Your task to perform on an android device: Clear the cart on bestbuy. Search for rayovac triple a on bestbuy, select the first entry, and add it to the cart. Image 0: 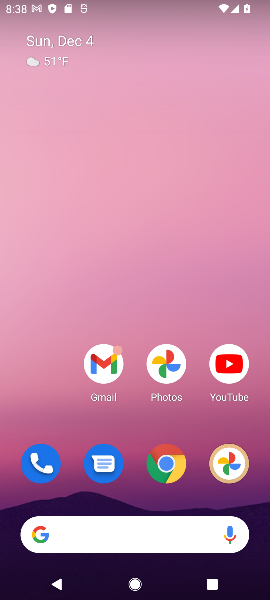
Step 0: click (119, 538)
Your task to perform on an android device: Clear the cart on bestbuy. Search for rayovac triple a on bestbuy, select the first entry, and add it to the cart. Image 1: 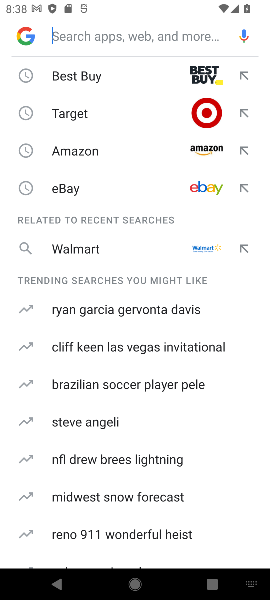
Step 1: type "bestbuy"
Your task to perform on an android device: Clear the cart on bestbuy. Search for rayovac triple a on bestbuy, select the first entry, and add it to the cart. Image 2: 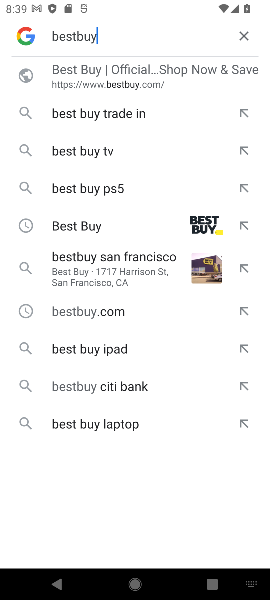
Step 2: task complete